Your task to perform on an android device: install app "Google Play Games" Image 0: 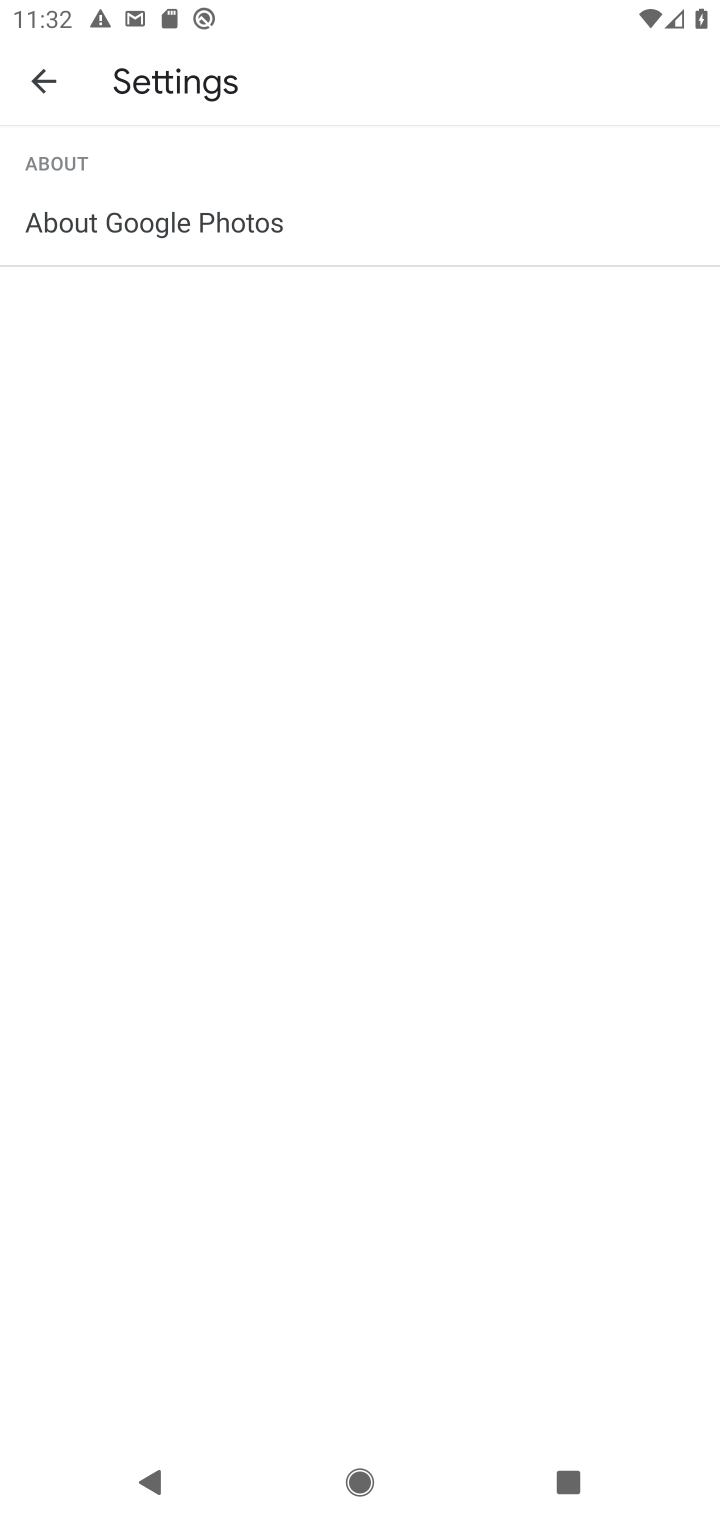
Step 0: press home button
Your task to perform on an android device: install app "Google Play Games" Image 1: 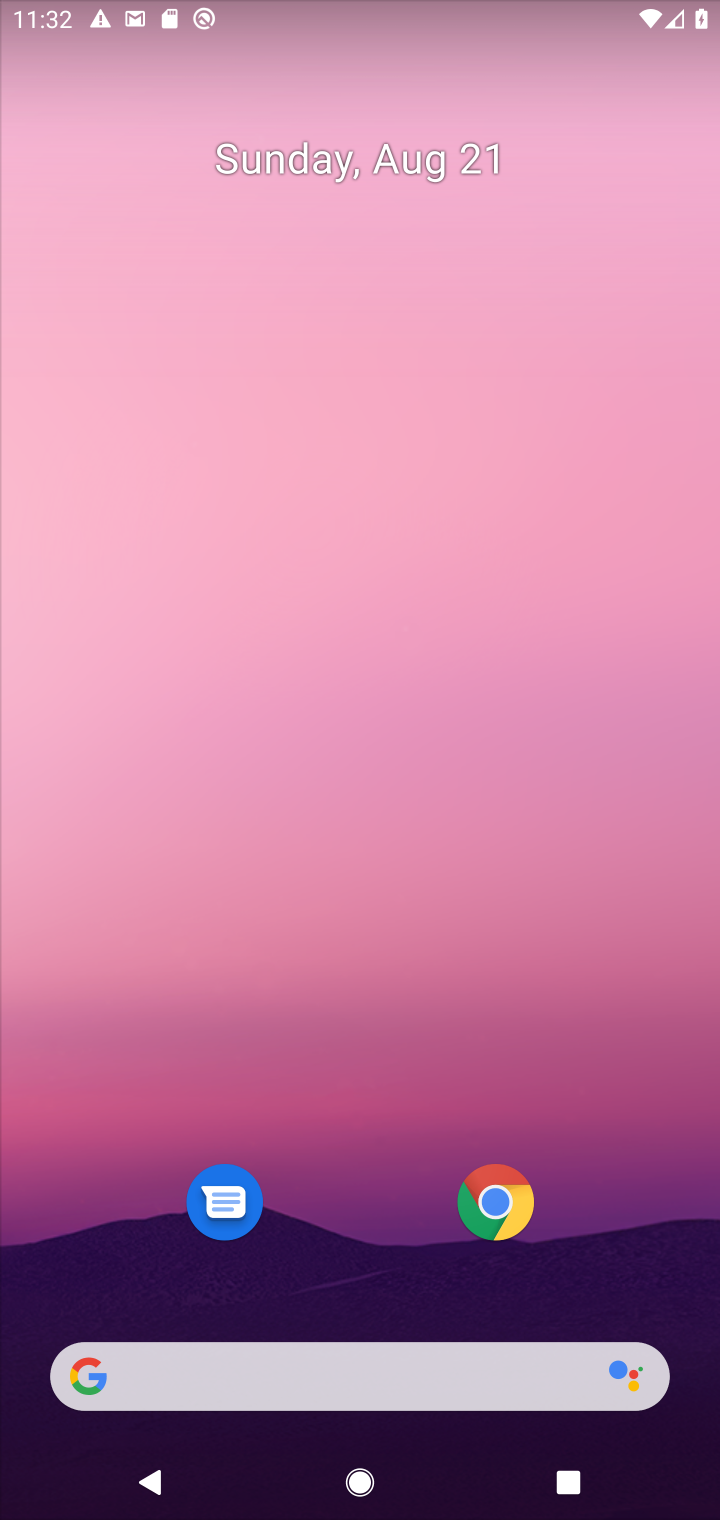
Step 1: drag from (342, 685) to (330, 270)
Your task to perform on an android device: install app "Google Play Games" Image 2: 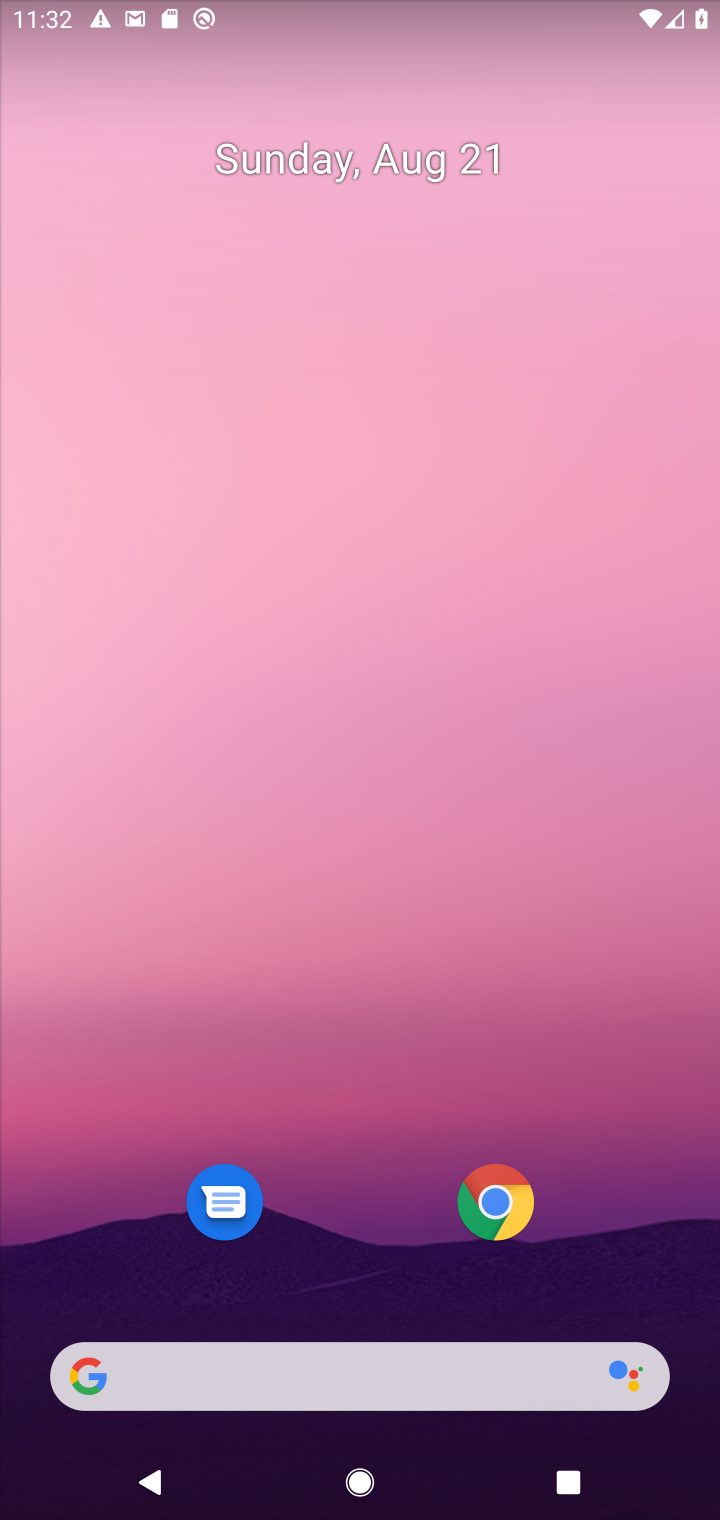
Step 2: drag from (337, 1203) to (343, 107)
Your task to perform on an android device: install app "Google Play Games" Image 3: 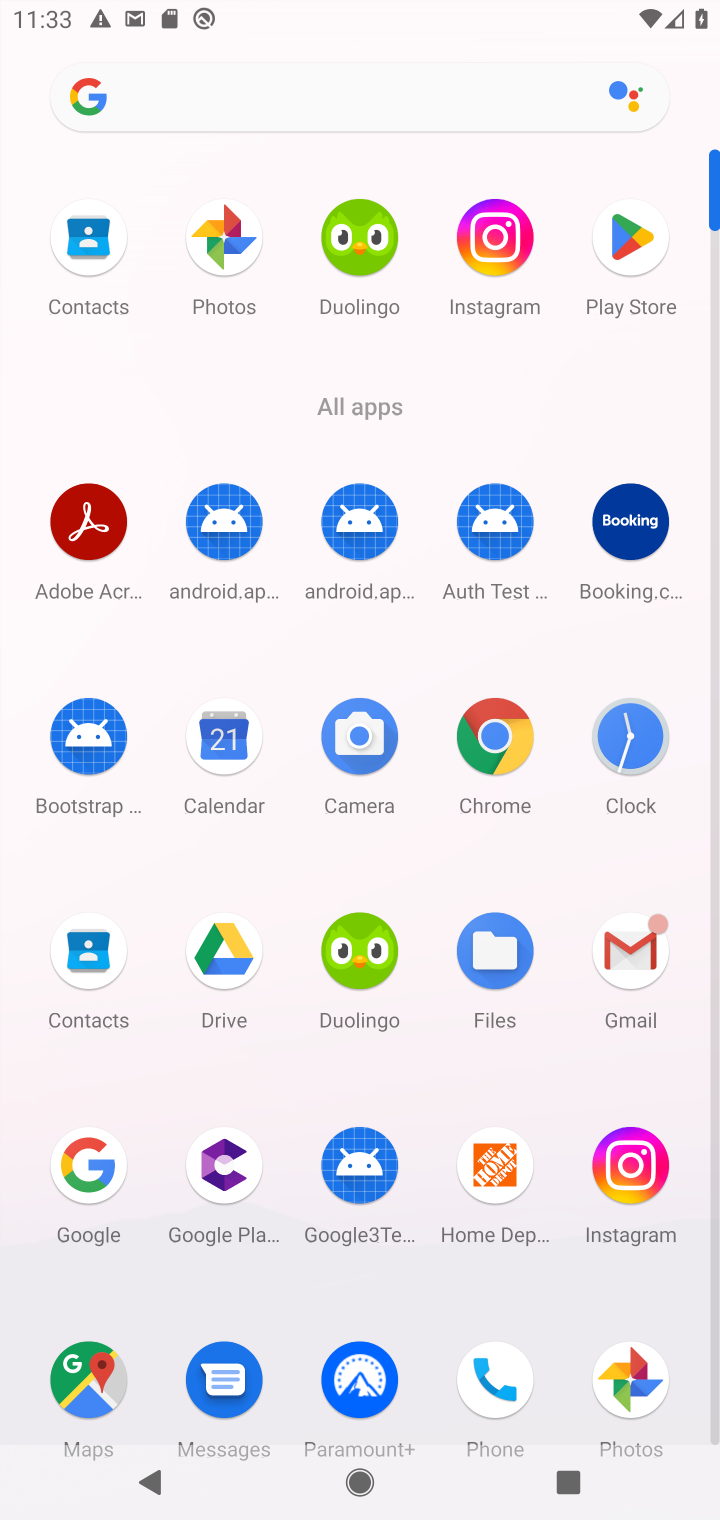
Step 3: click (637, 243)
Your task to perform on an android device: install app "Google Play Games" Image 4: 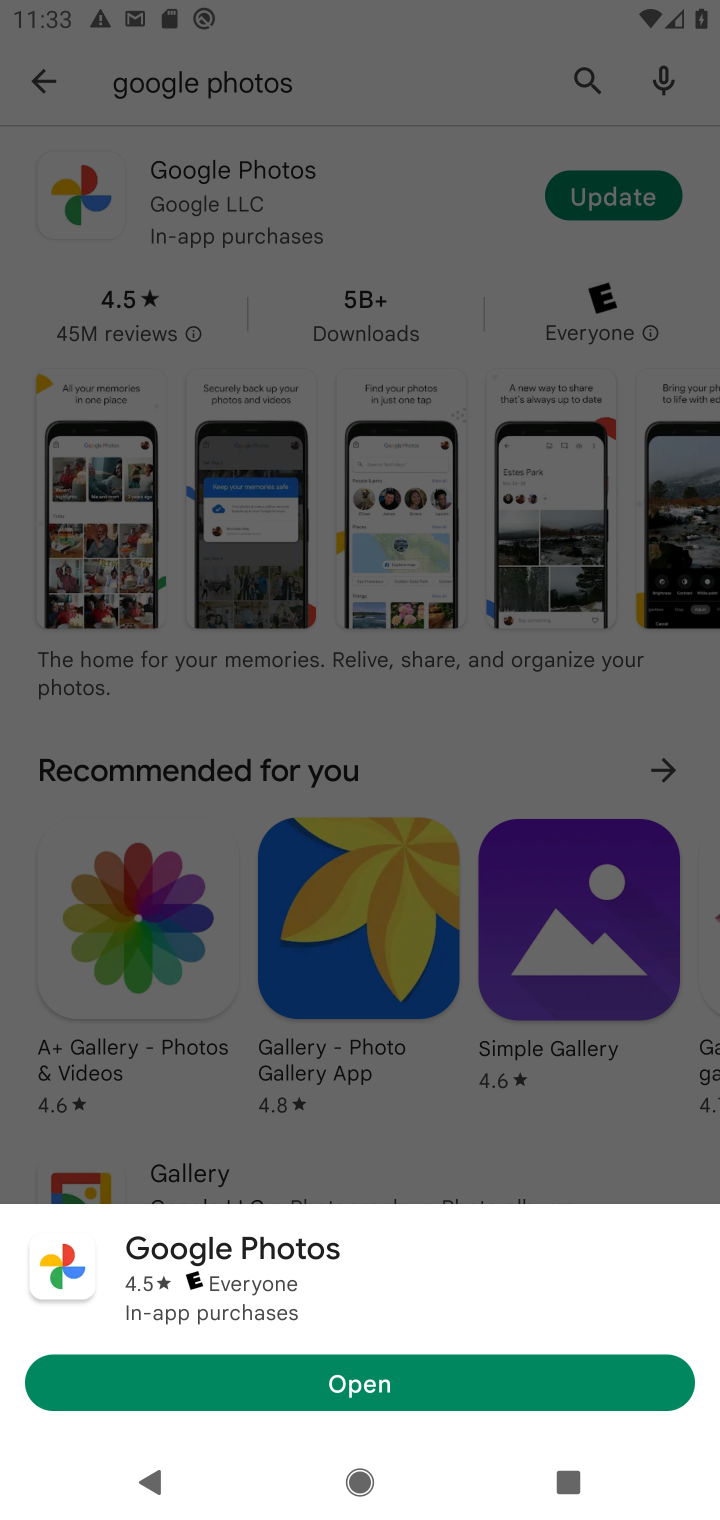
Step 4: click (410, 185)
Your task to perform on an android device: install app "Google Play Games" Image 5: 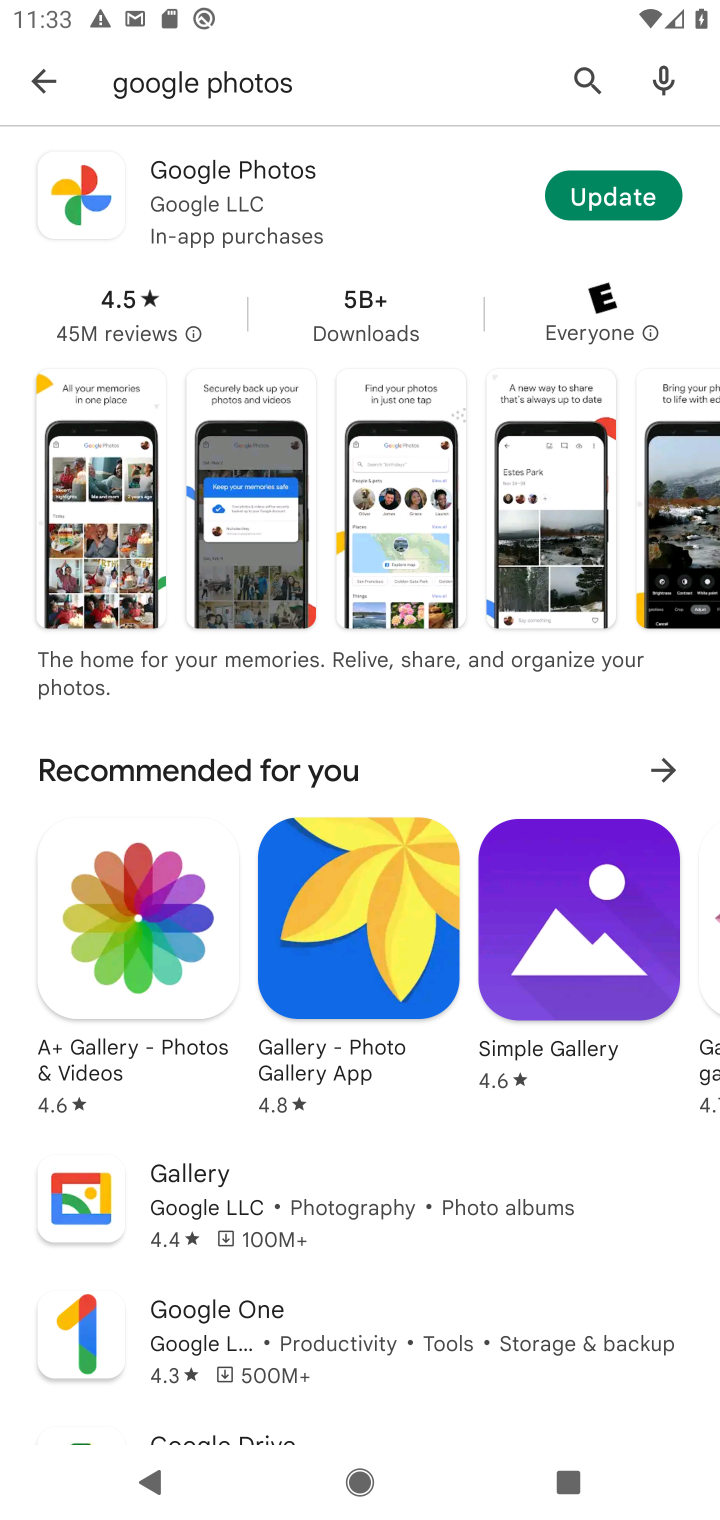
Step 5: click (583, 78)
Your task to perform on an android device: install app "Google Play Games" Image 6: 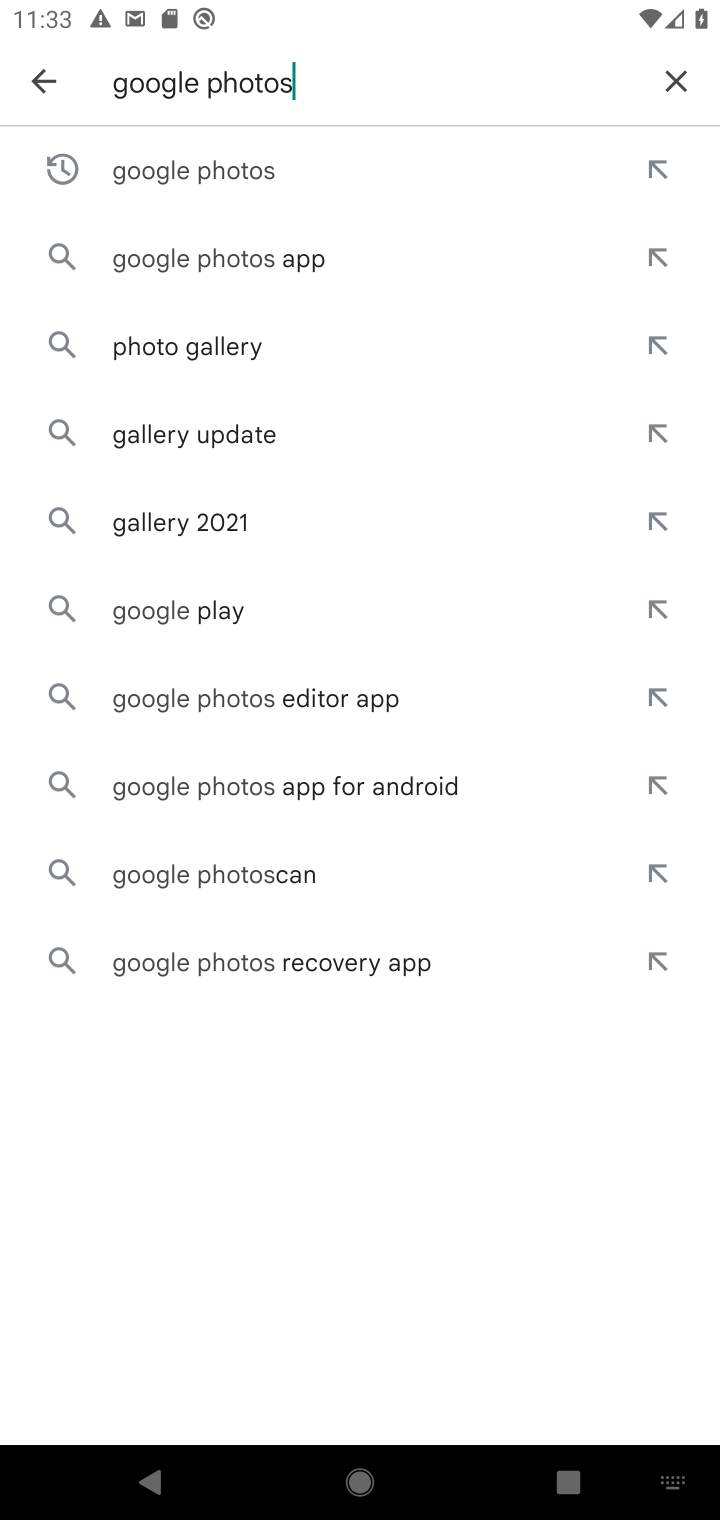
Step 6: click (669, 85)
Your task to perform on an android device: install app "Google Play Games" Image 7: 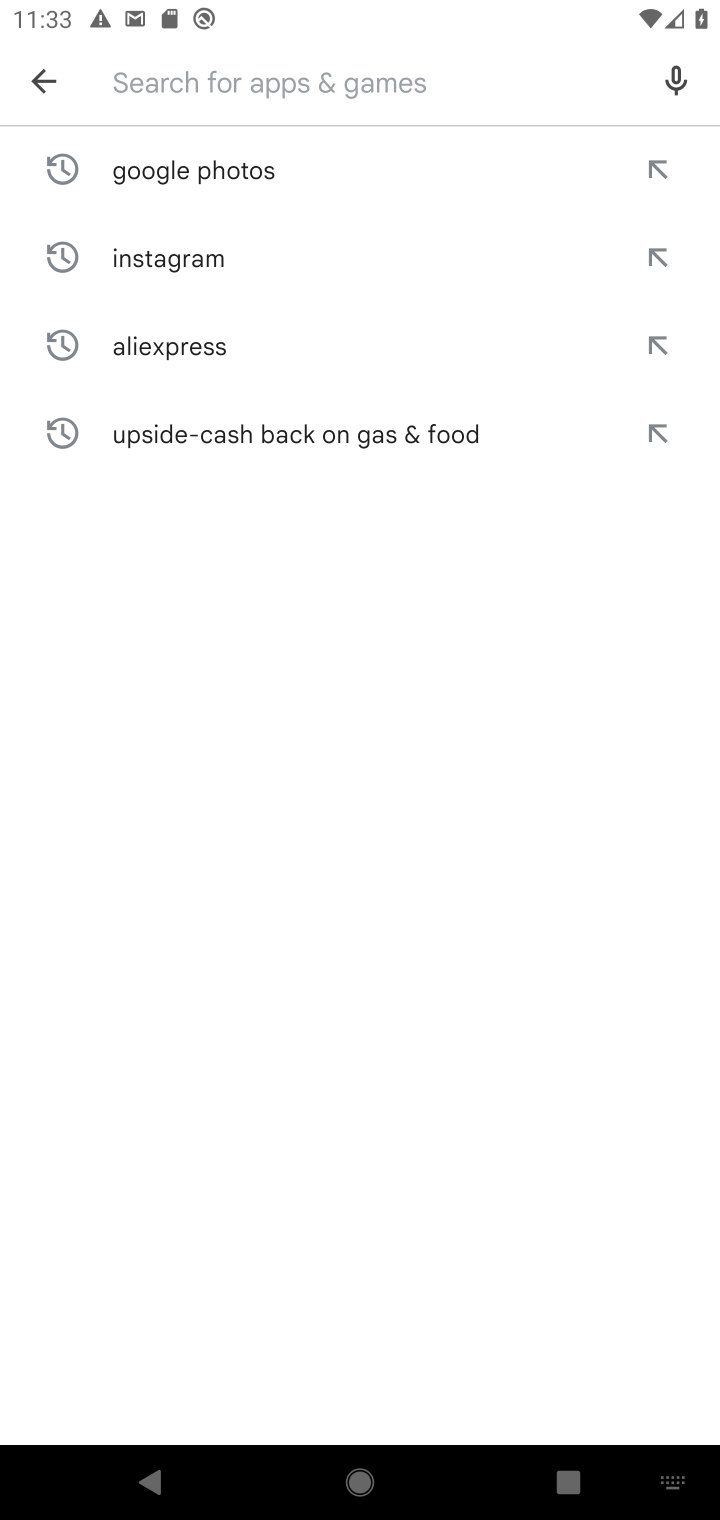
Step 7: type "Google Play Games"
Your task to perform on an android device: install app "Google Play Games" Image 8: 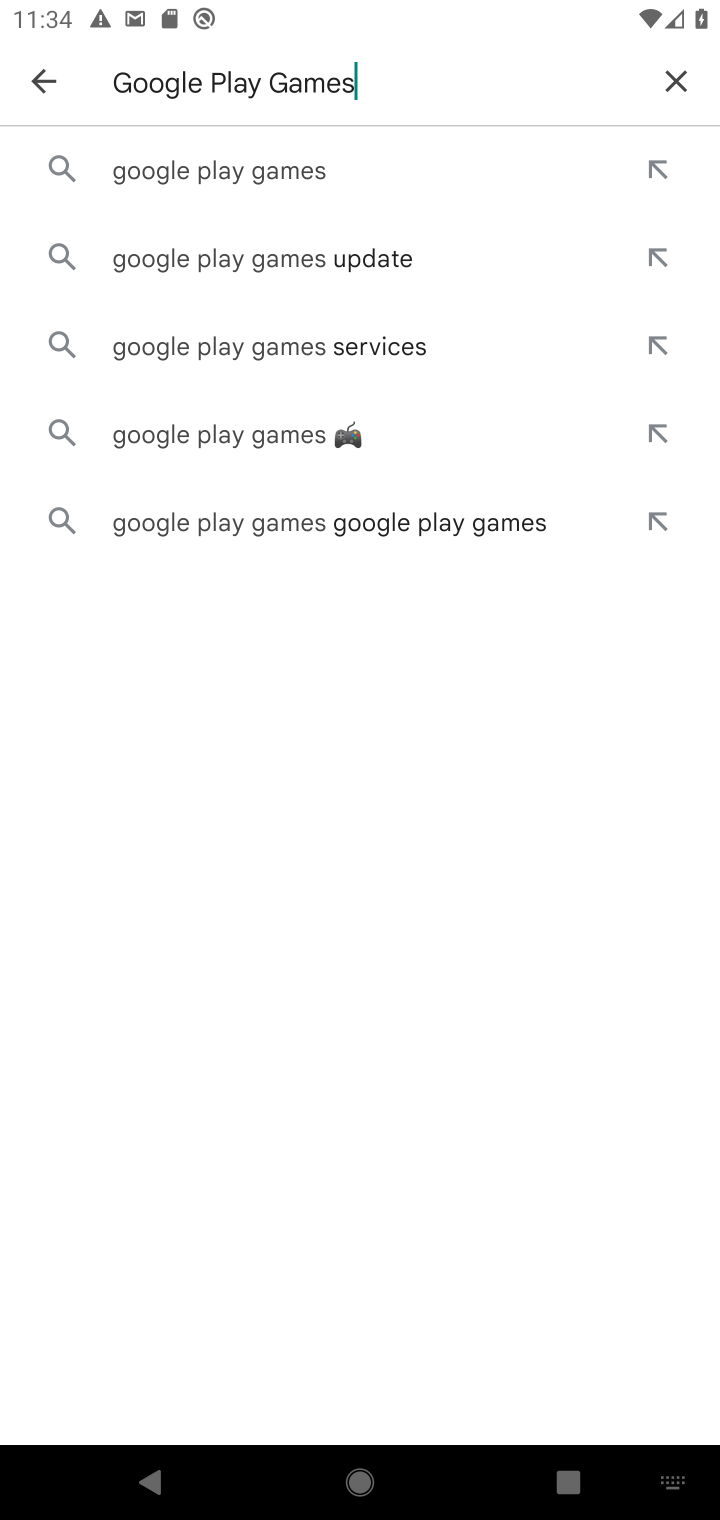
Step 8: click (243, 167)
Your task to perform on an android device: install app "Google Play Games" Image 9: 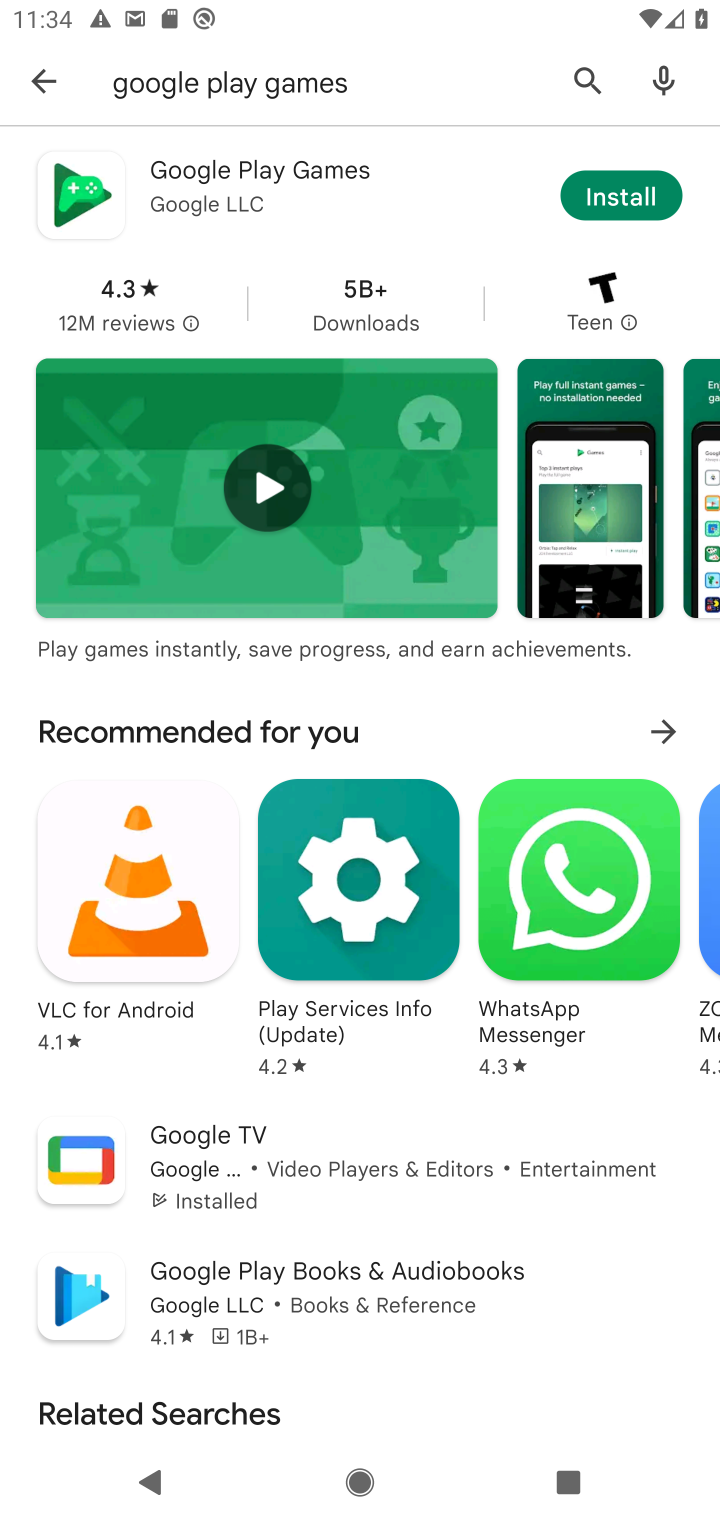
Step 9: click (624, 192)
Your task to perform on an android device: install app "Google Play Games" Image 10: 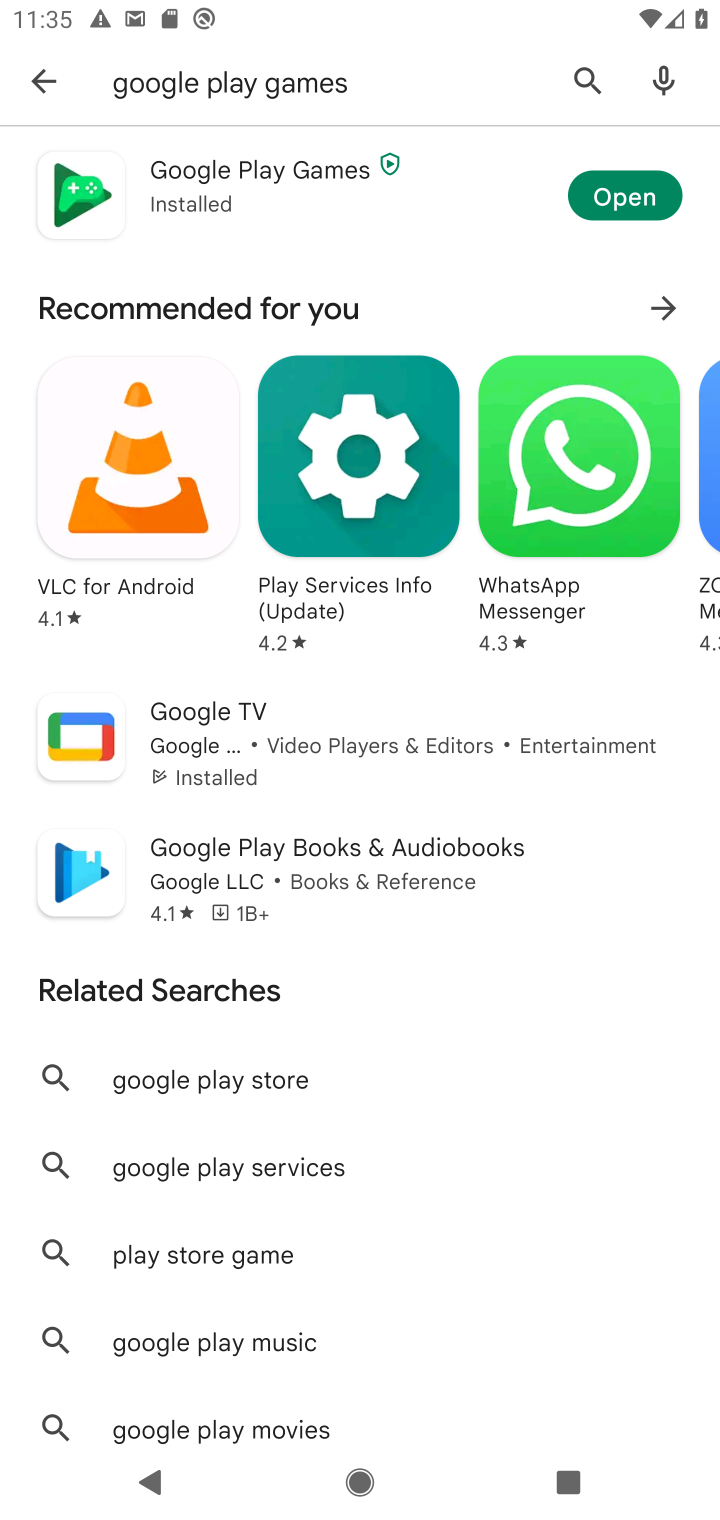
Step 10: task complete